Your task to perform on an android device: Look up the best gaming headphones on Best Buy Image 0: 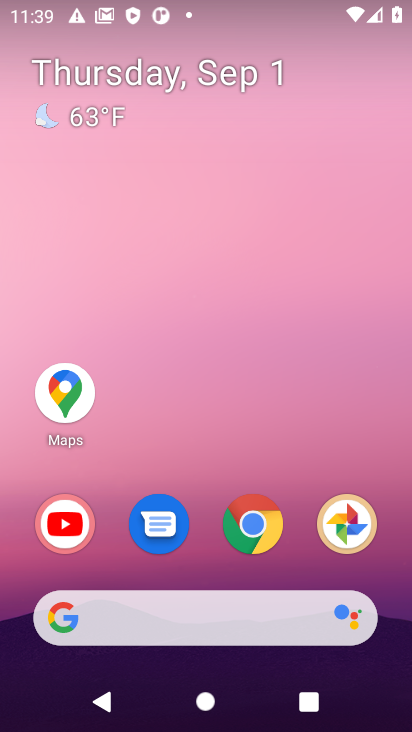
Step 0: click (251, 533)
Your task to perform on an android device: Look up the best gaming headphones on Best Buy Image 1: 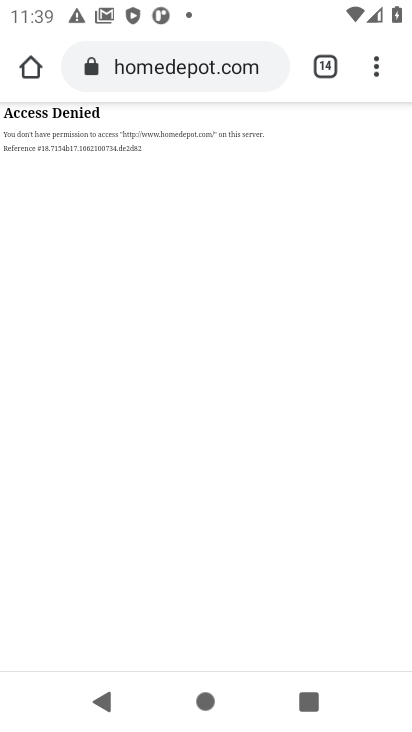
Step 1: click (322, 77)
Your task to perform on an android device: Look up the best gaming headphones on Best Buy Image 2: 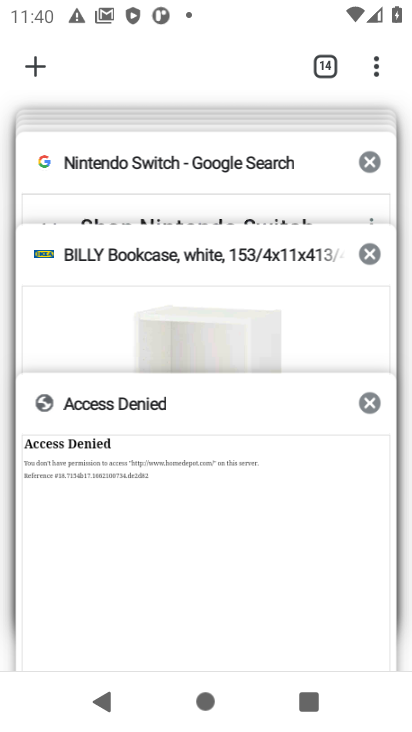
Step 2: drag from (239, 173) to (246, 558)
Your task to perform on an android device: Look up the best gaming headphones on Best Buy Image 3: 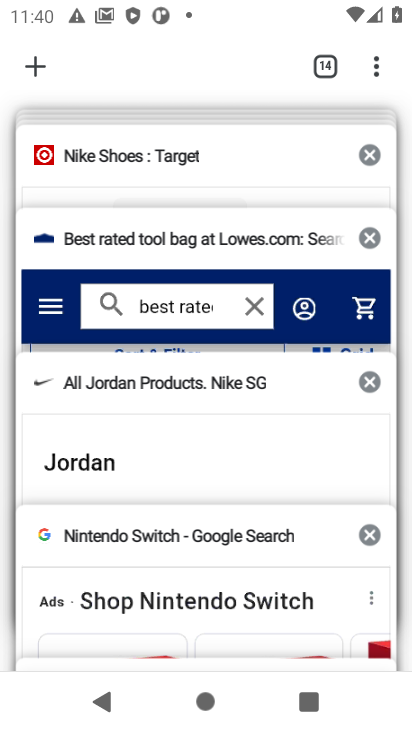
Step 3: drag from (207, 341) to (213, 577)
Your task to perform on an android device: Look up the best gaming headphones on Best Buy Image 4: 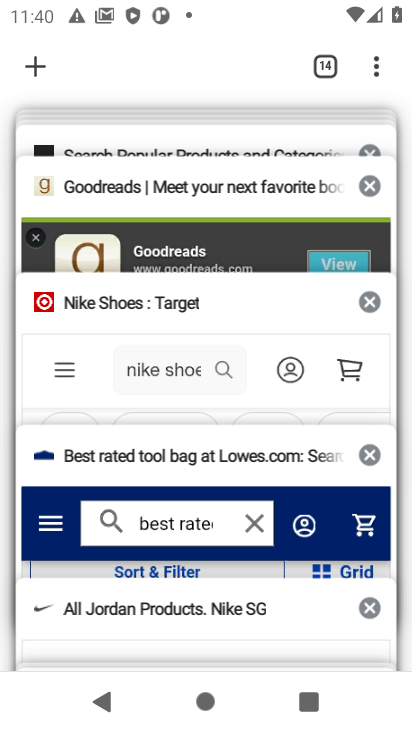
Step 4: drag from (221, 147) to (261, 583)
Your task to perform on an android device: Look up the best gaming headphones on Best Buy Image 5: 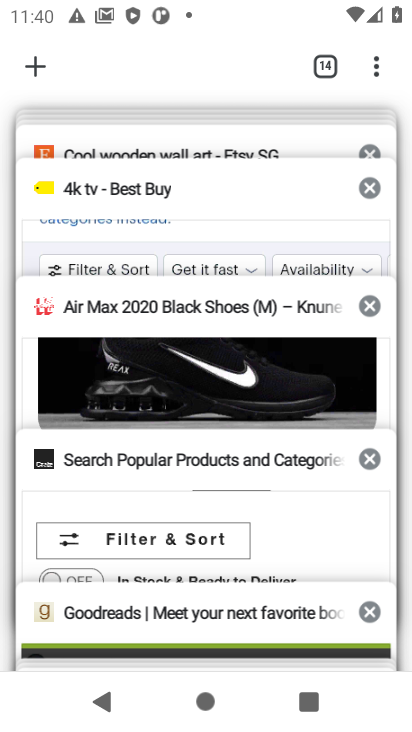
Step 5: click (214, 217)
Your task to perform on an android device: Look up the best gaming headphones on Best Buy Image 6: 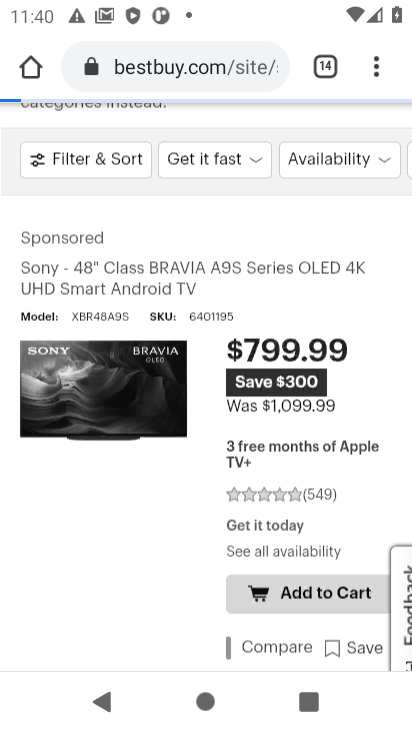
Step 6: drag from (317, 202) to (328, 654)
Your task to perform on an android device: Look up the best gaming headphones on Best Buy Image 7: 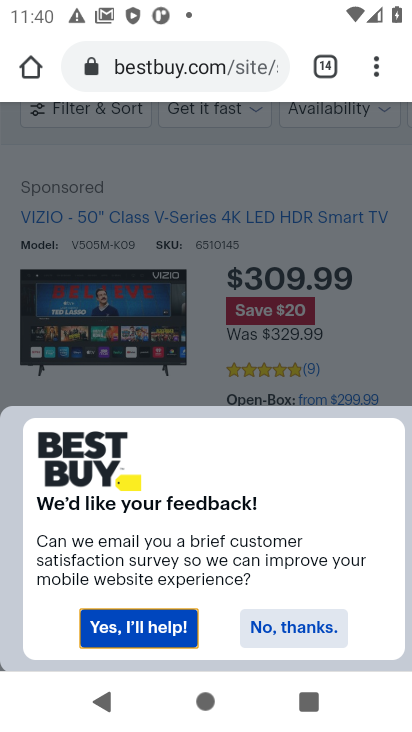
Step 7: click (322, 188)
Your task to perform on an android device: Look up the best gaming headphones on Best Buy Image 8: 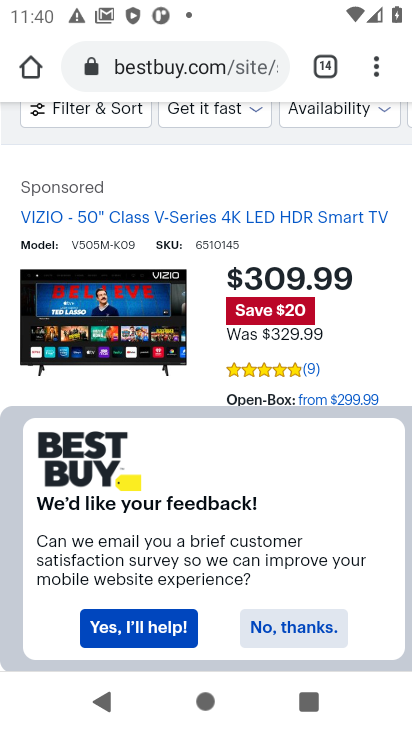
Step 8: click (285, 628)
Your task to perform on an android device: Look up the best gaming headphones on Best Buy Image 9: 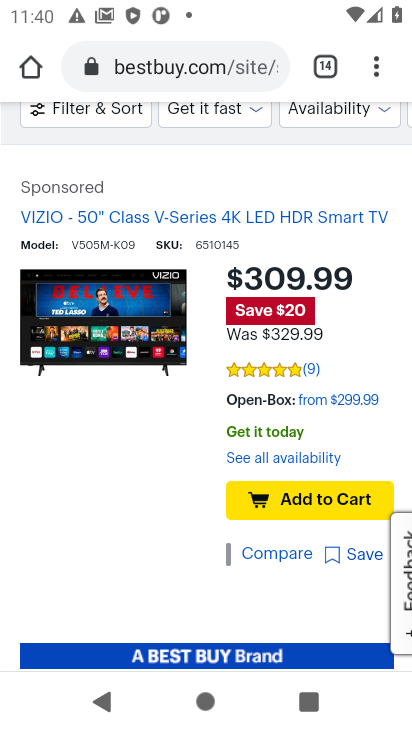
Step 9: drag from (299, 255) to (314, 617)
Your task to perform on an android device: Look up the best gaming headphones on Best Buy Image 10: 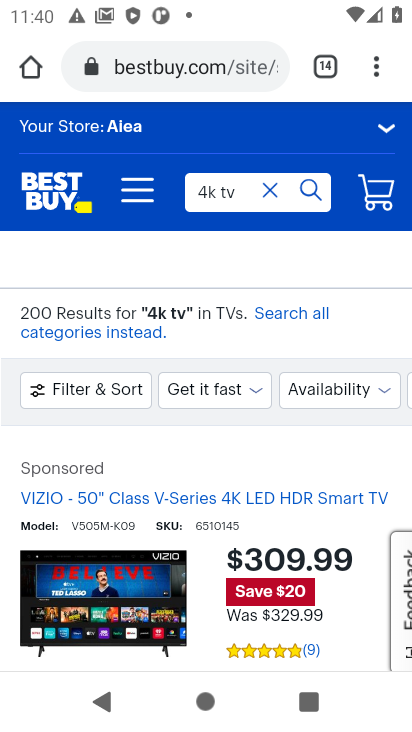
Step 10: click (270, 187)
Your task to perform on an android device: Look up the best gaming headphones on Best Buy Image 11: 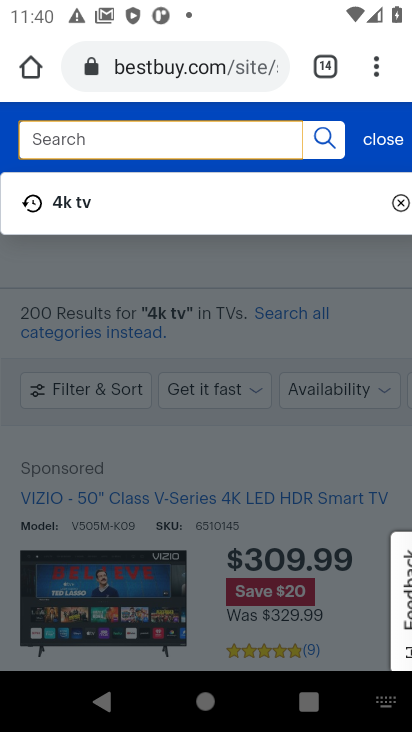
Step 11: type "best gaming headphonesbest gaming headphones"
Your task to perform on an android device: Look up the best gaming headphones on Best Buy Image 12: 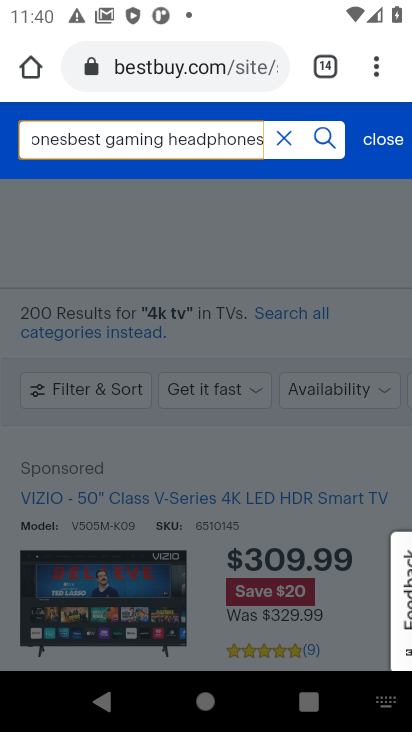
Step 12: click (325, 133)
Your task to perform on an android device: Look up the best gaming headphones on Best Buy Image 13: 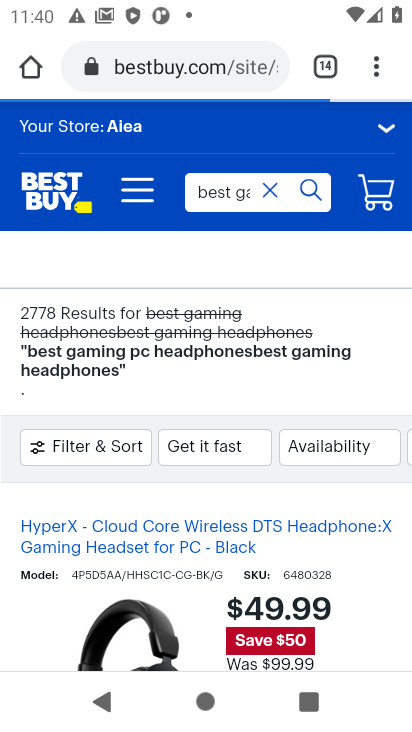
Step 13: task complete